Your task to perform on an android device: Go to Google maps Image 0: 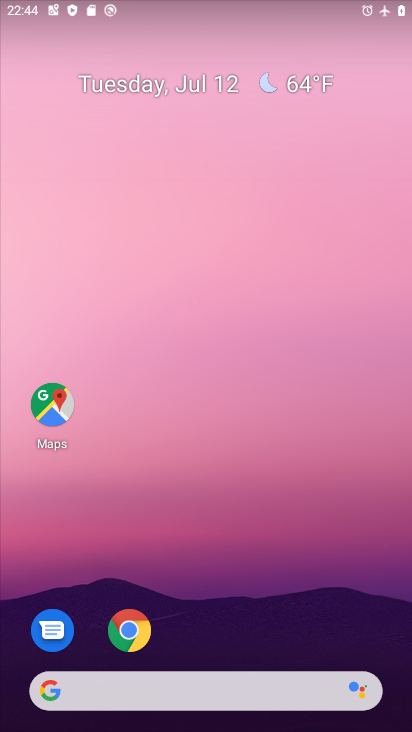
Step 0: drag from (235, 668) to (161, 30)
Your task to perform on an android device: Go to Google maps Image 1: 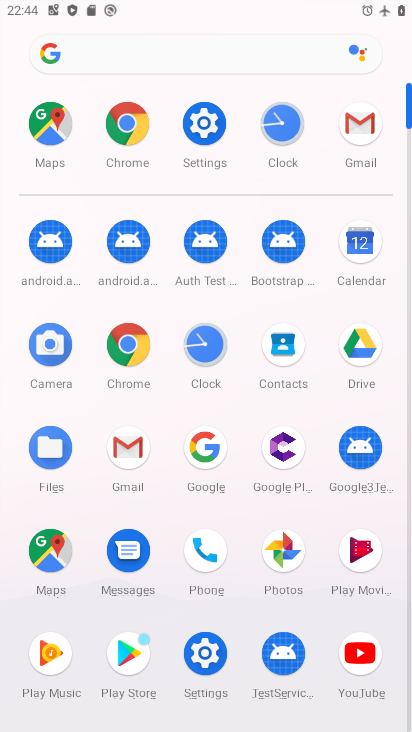
Step 1: click (49, 528)
Your task to perform on an android device: Go to Google maps Image 2: 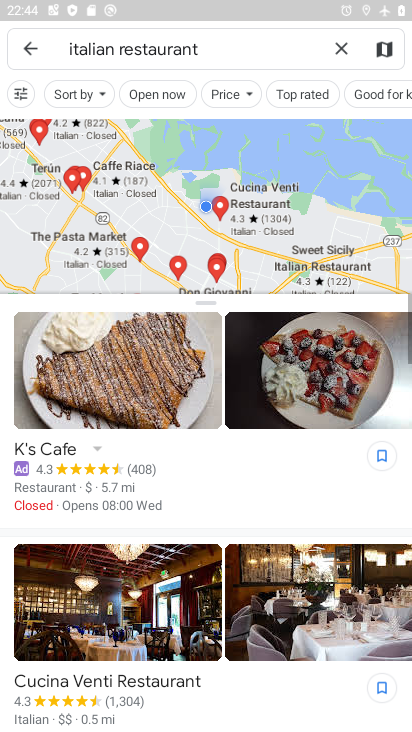
Step 2: click (25, 44)
Your task to perform on an android device: Go to Google maps Image 3: 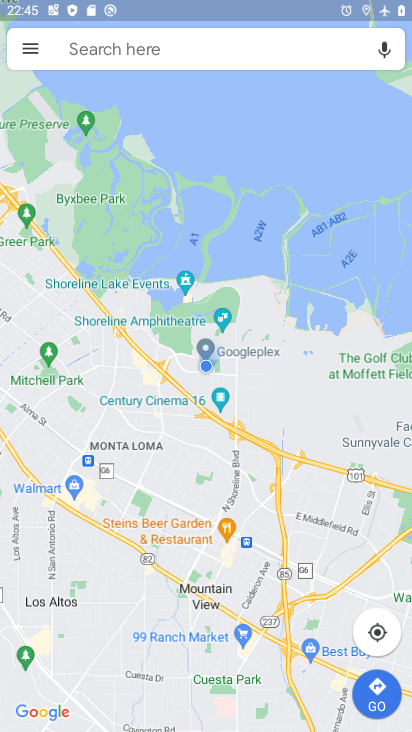
Step 3: task complete